Your task to perform on an android device: toggle notification dots Image 0: 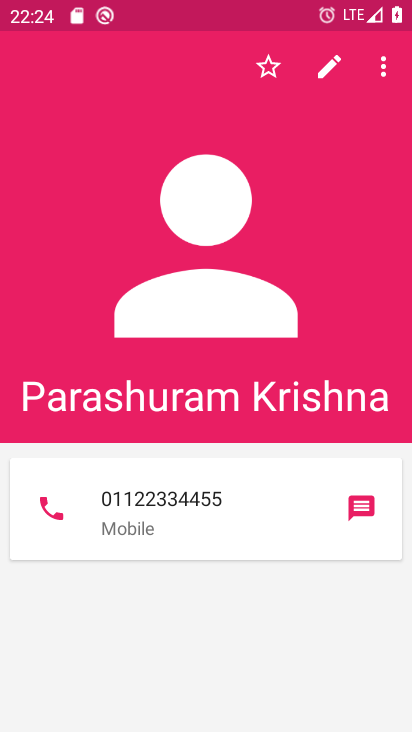
Step 0: press home button
Your task to perform on an android device: toggle notification dots Image 1: 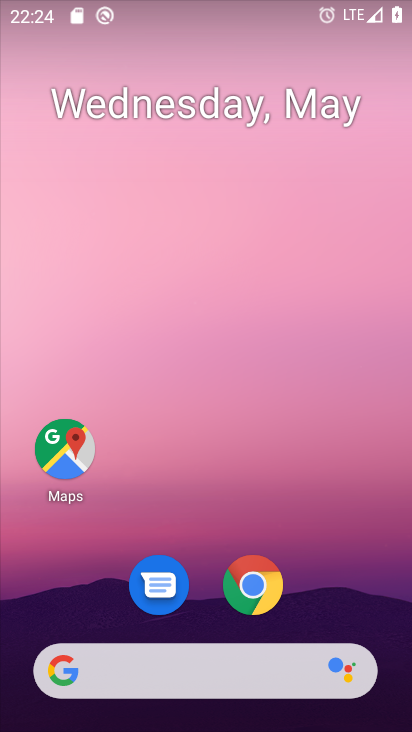
Step 1: drag from (256, 480) to (217, 30)
Your task to perform on an android device: toggle notification dots Image 2: 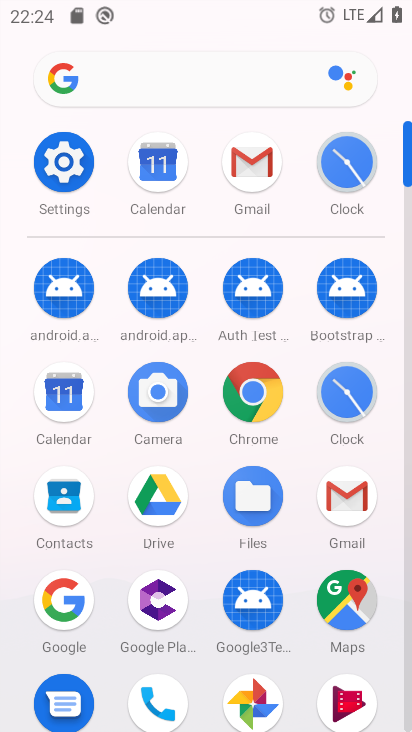
Step 2: click (76, 165)
Your task to perform on an android device: toggle notification dots Image 3: 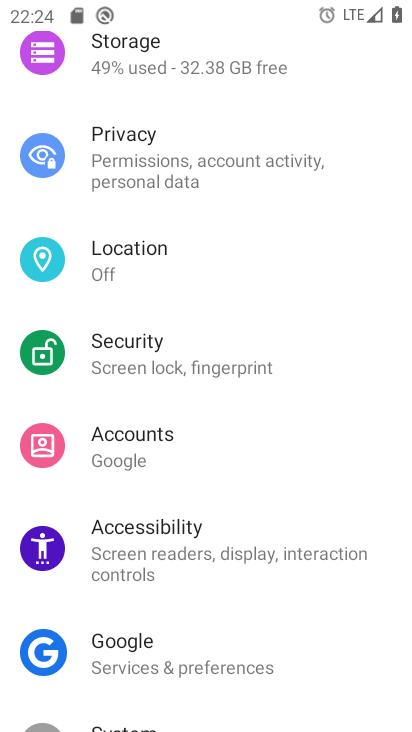
Step 3: drag from (220, 149) to (220, 666)
Your task to perform on an android device: toggle notification dots Image 4: 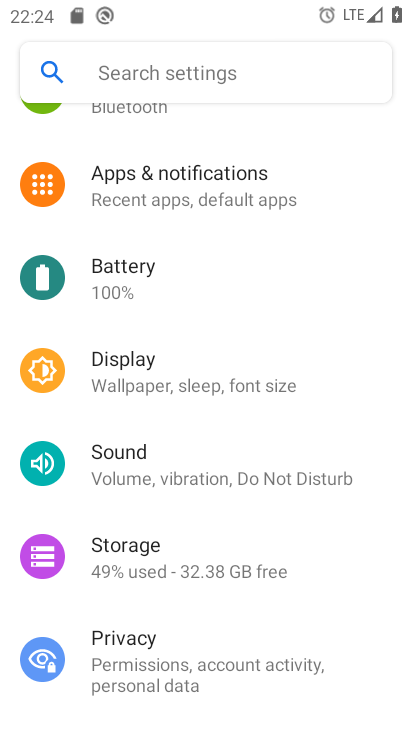
Step 4: click (208, 184)
Your task to perform on an android device: toggle notification dots Image 5: 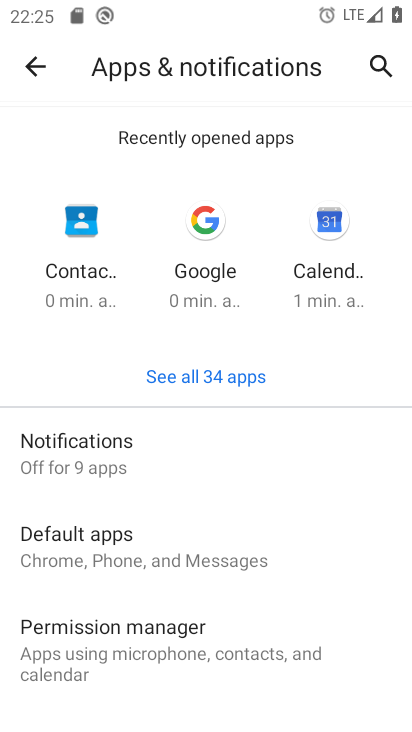
Step 5: click (175, 456)
Your task to perform on an android device: toggle notification dots Image 6: 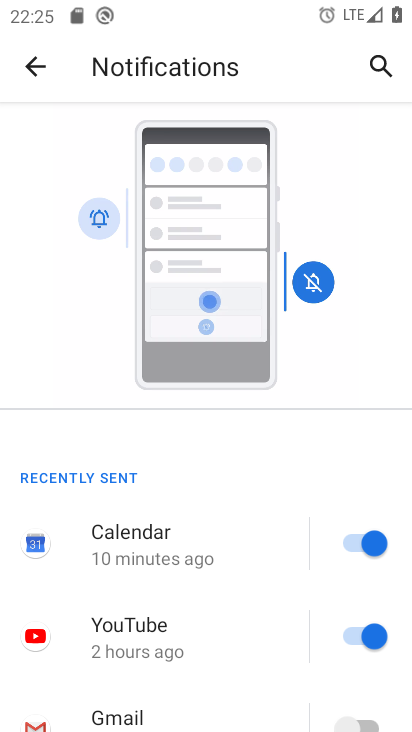
Step 6: drag from (252, 594) to (318, 168)
Your task to perform on an android device: toggle notification dots Image 7: 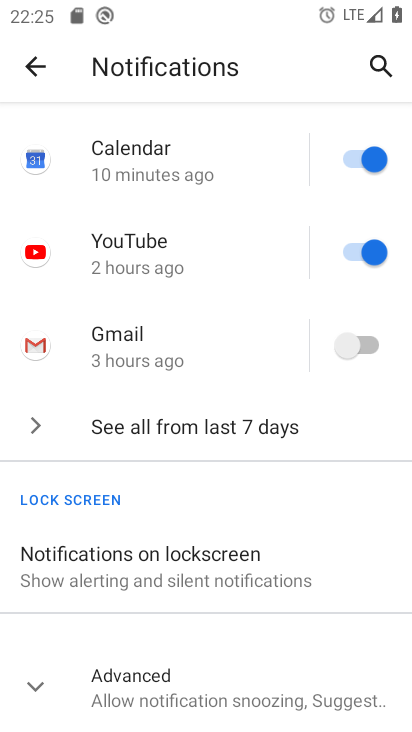
Step 7: click (30, 680)
Your task to perform on an android device: toggle notification dots Image 8: 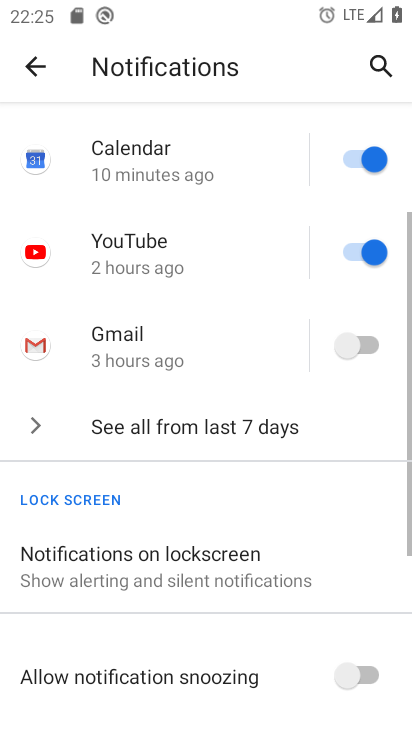
Step 8: drag from (215, 619) to (291, 138)
Your task to perform on an android device: toggle notification dots Image 9: 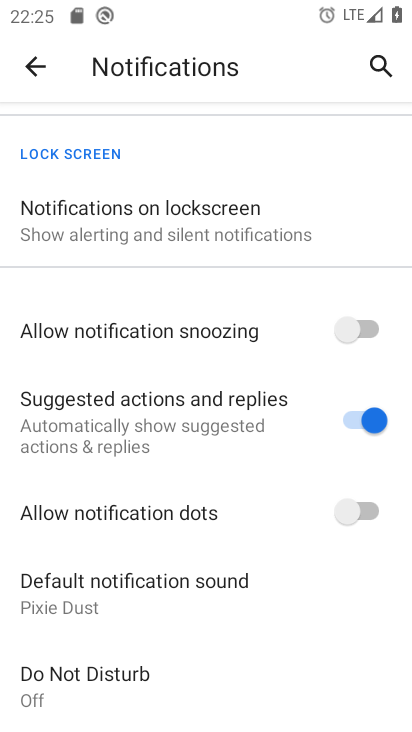
Step 9: click (359, 498)
Your task to perform on an android device: toggle notification dots Image 10: 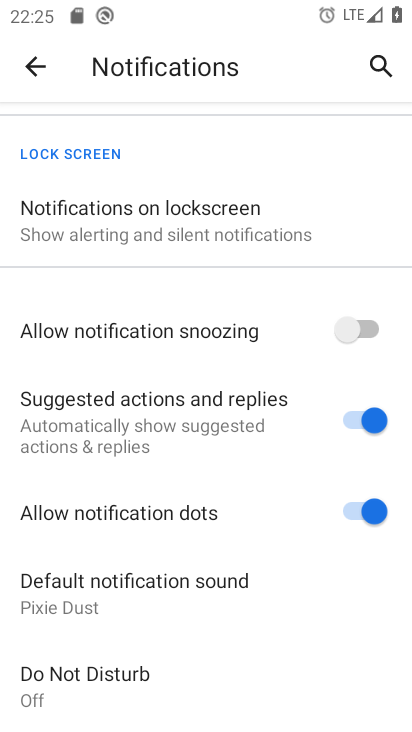
Step 10: task complete